Your task to perform on an android device: Is it going to rain tomorrow? Image 0: 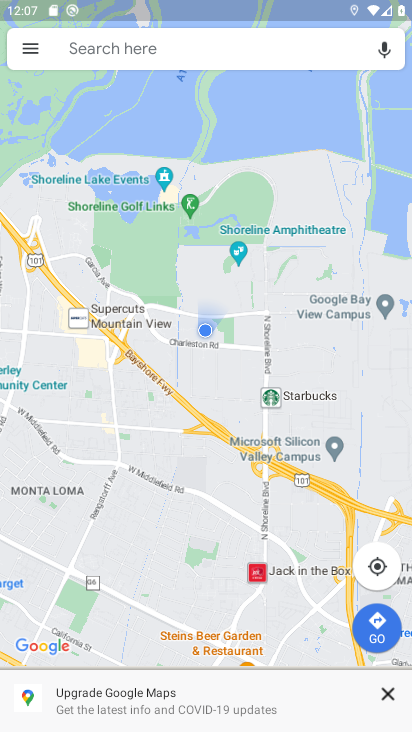
Step 0: press home button
Your task to perform on an android device: Is it going to rain tomorrow? Image 1: 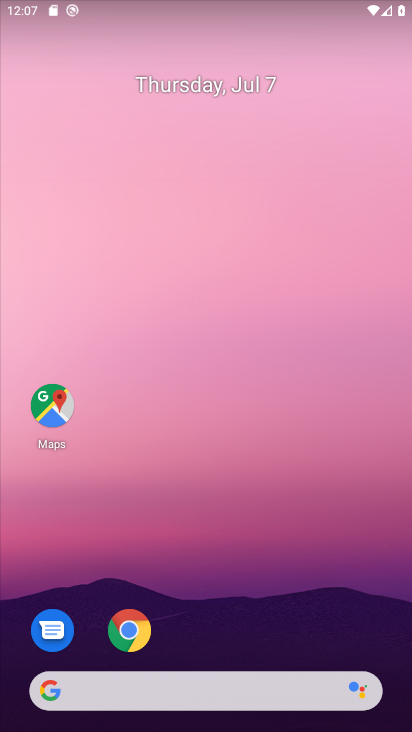
Step 1: click (197, 676)
Your task to perform on an android device: Is it going to rain tomorrow? Image 2: 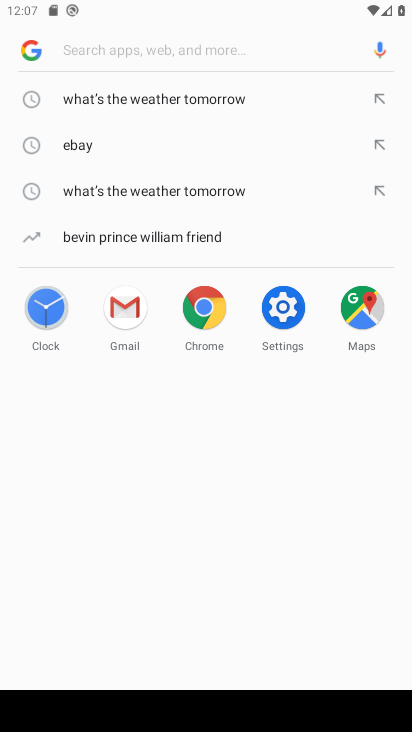
Step 2: click (204, 98)
Your task to perform on an android device: Is it going to rain tomorrow? Image 3: 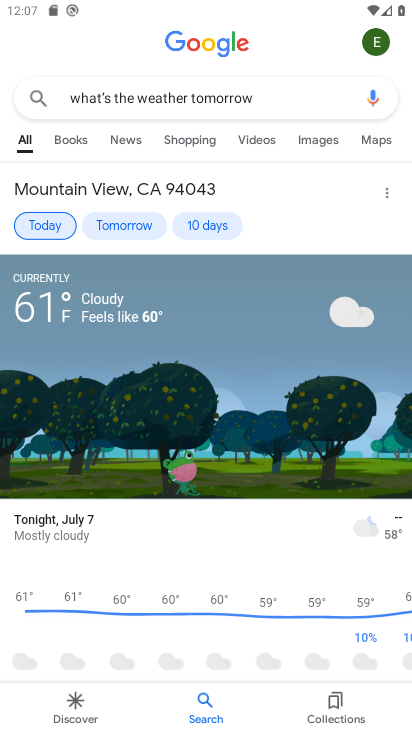
Step 3: click (108, 229)
Your task to perform on an android device: Is it going to rain tomorrow? Image 4: 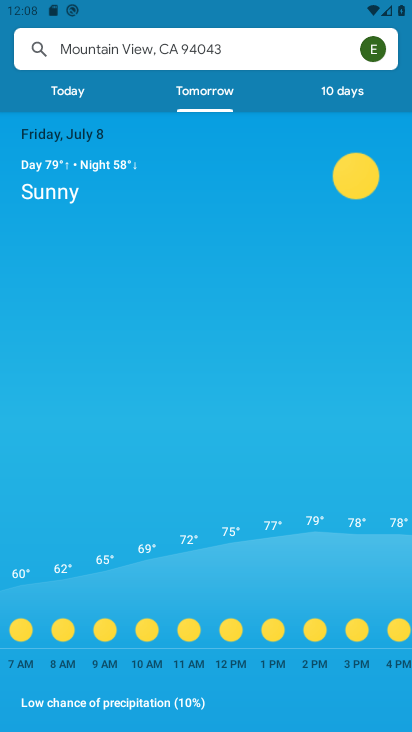
Step 4: task complete